Your task to perform on an android device: delete location history Image 0: 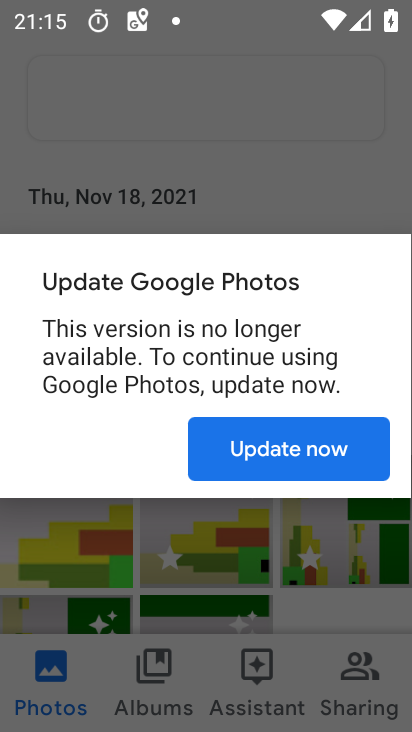
Step 0: press home button
Your task to perform on an android device: delete location history Image 1: 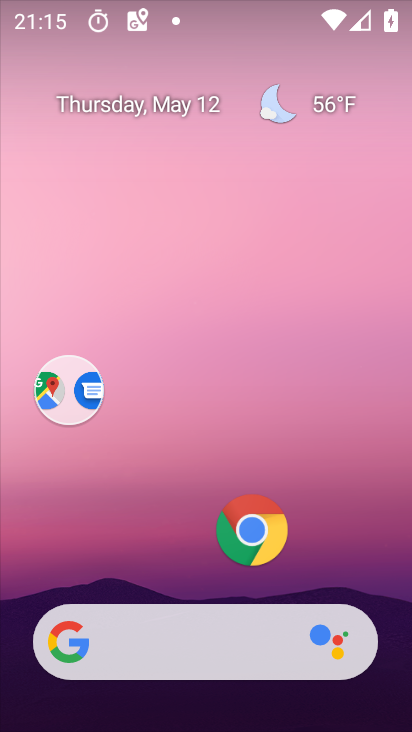
Step 1: drag from (177, 570) to (193, 99)
Your task to perform on an android device: delete location history Image 2: 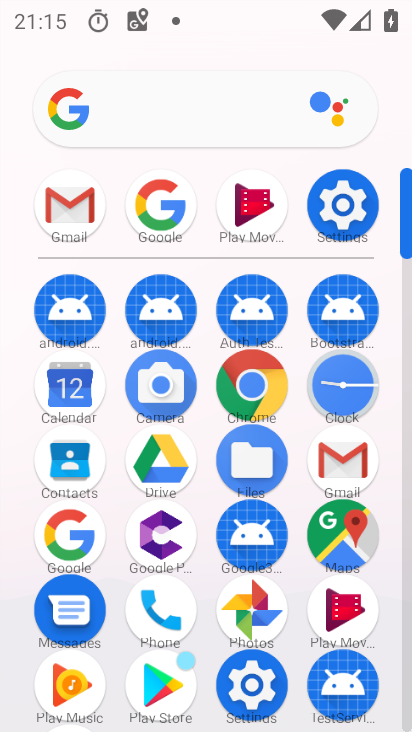
Step 2: click (344, 209)
Your task to perform on an android device: delete location history Image 3: 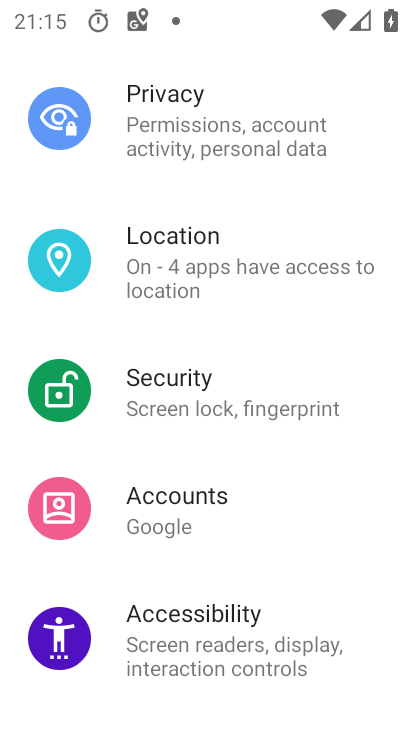
Step 3: click (216, 267)
Your task to perform on an android device: delete location history Image 4: 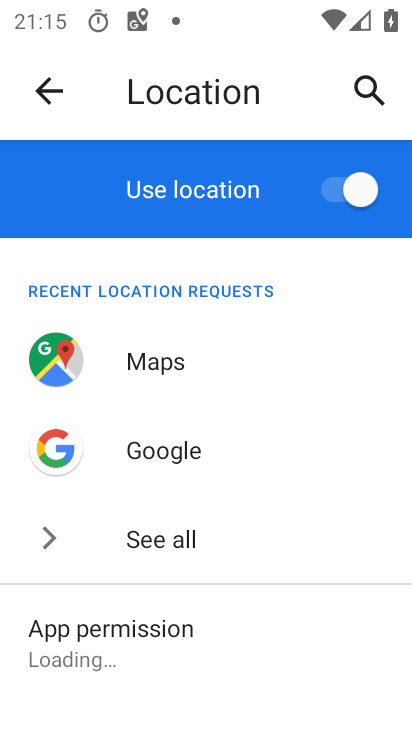
Step 4: drag from (280, 549) to (285, 7)
Your task to perform on an android device: delete location history Image 5: 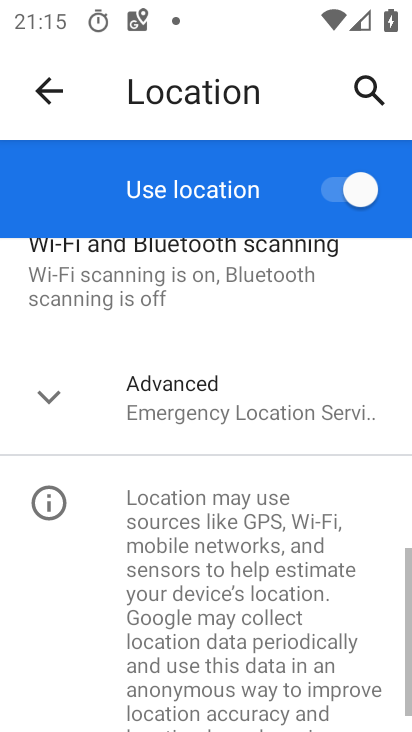
Step 5: drag from (178, 674) to (212, 342)
Your task to perform on an android device: delete location history Image 6: 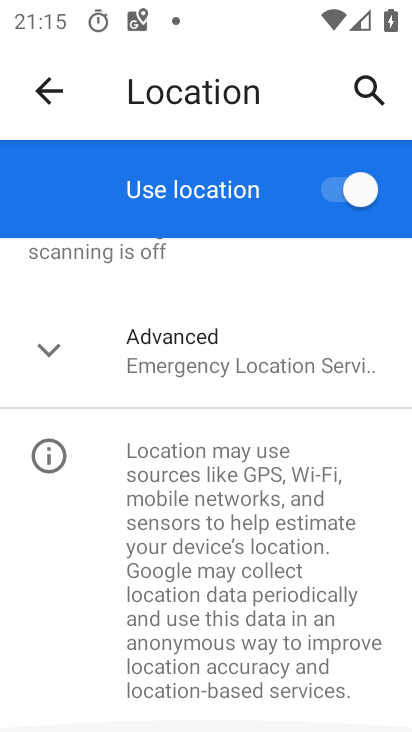
Step 6: click (179, 365)
Your task to perform on an android device: delete location history Image 7: 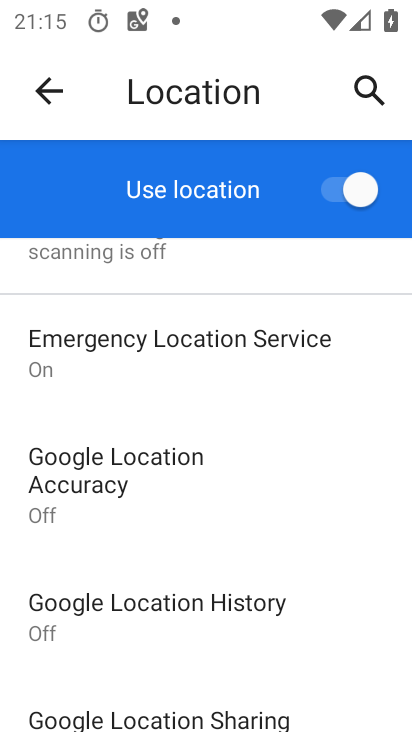
Step 7: click (129, 596)
Your task to perform on an android device: delete location history Image 8: 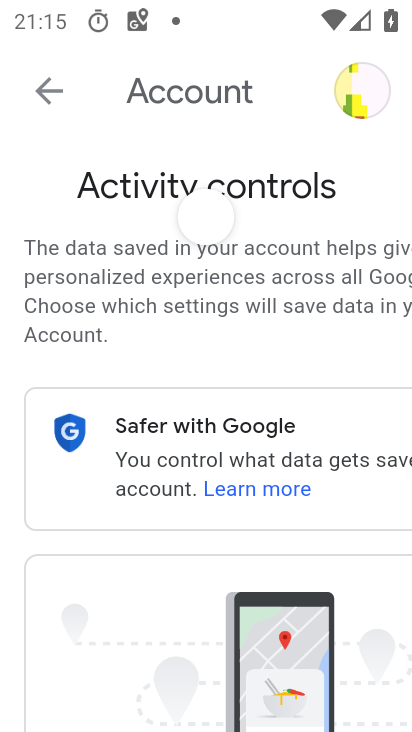
Step 8: drag from (184, 571) to (105, 23)
Your task to perform on an android device: delete location history Image 9: 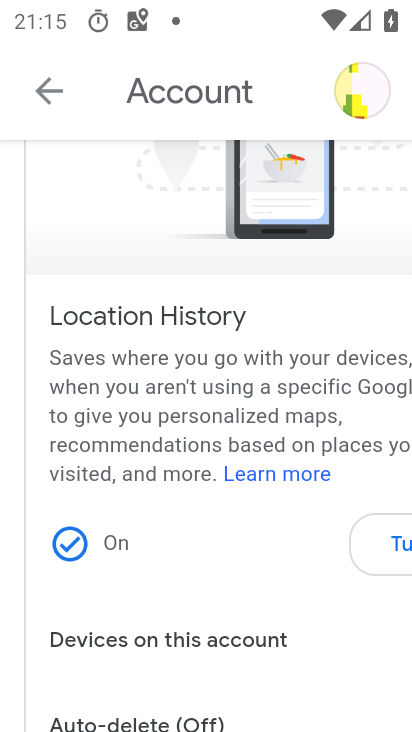
Step 9: drag from (143, 636) to (152, 229)
Your task to perform on an android device: delete location history Image 10: 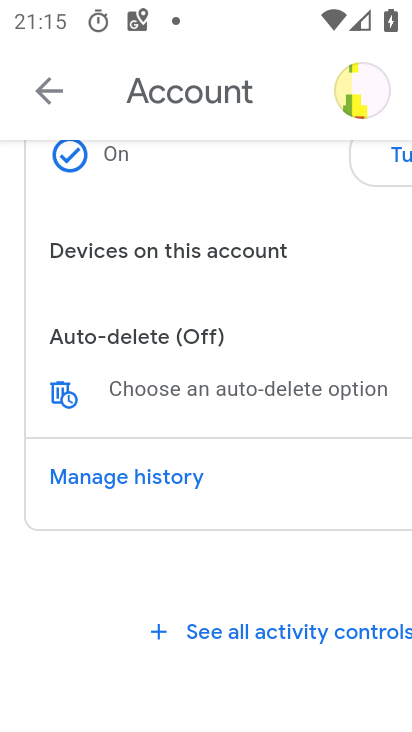
Step 10: click (64, 390)
Your task to perform on an android device: delete location history Image 11: 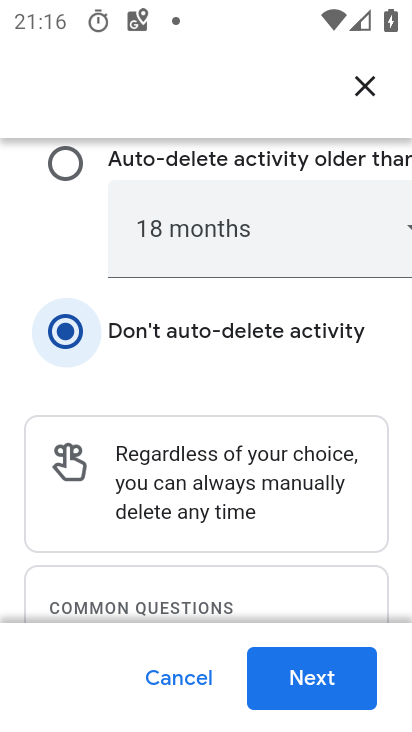
Step 11: drag from (256, 534) to (228, 234)
Your task to perform on an android device: delete location history Image 12: 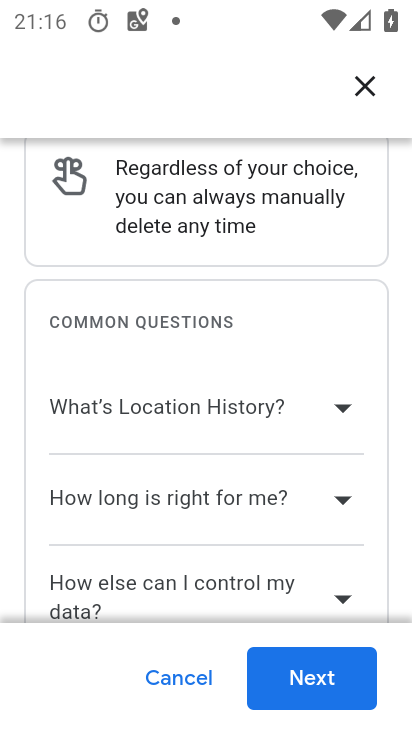
Step 12: click (308, 671)
Your task to perform on an android device: delete location history Image 13: 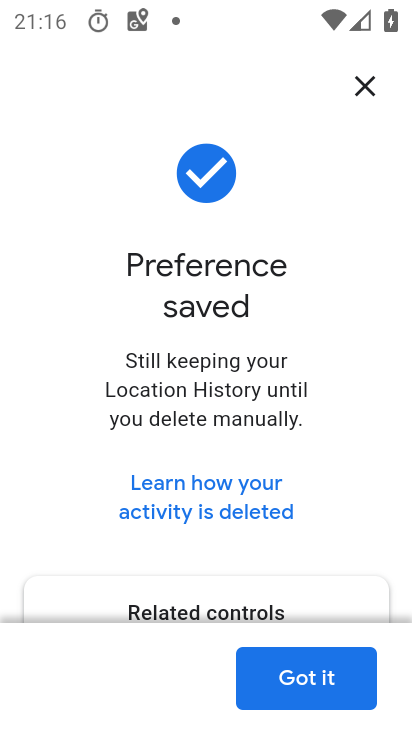
Step 13: click (308, 671)
Your task to perform on an android device: delete location history Image 14: 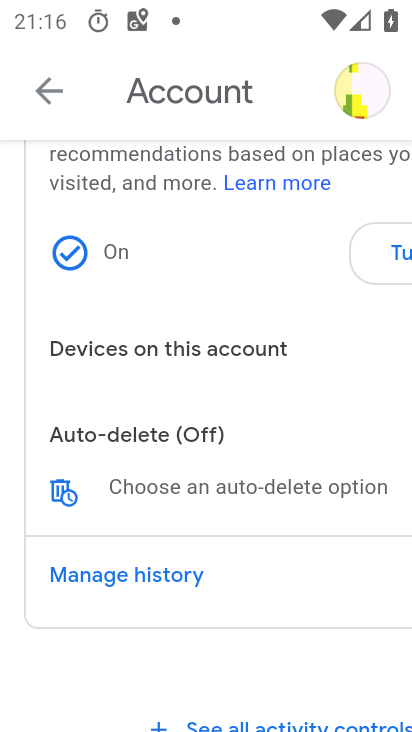
Step 14: task complete